Your task to perform on an android device: check android version Image 0: 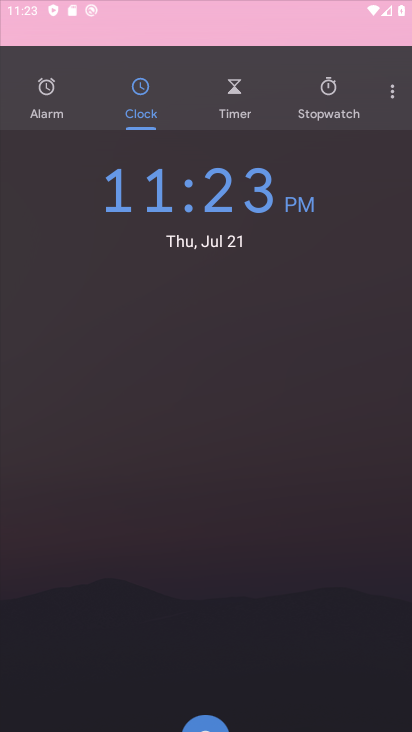
Step 0: press home button
Your task to perform on an android device: check android version Image 1: 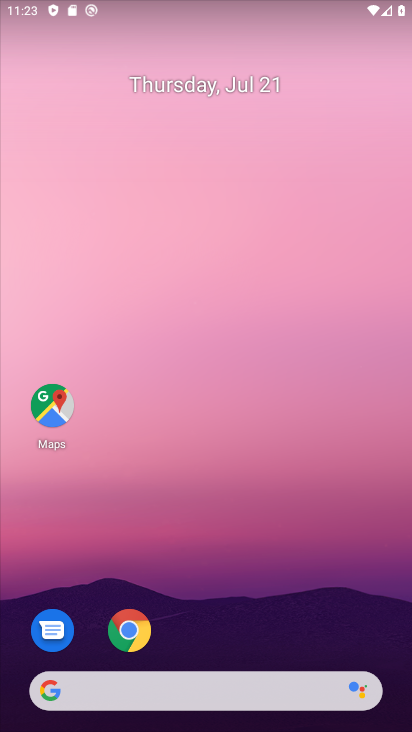
Step 1: drag from (257, 628) to (267, 83)
Your task to perform on an android device: check android version Image 2: 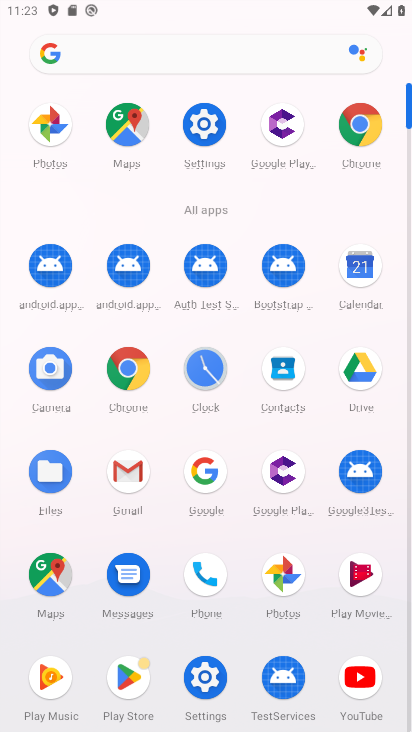
Step 2: click (190, 112)
Your task to perform on an android device: check android version Image 3: 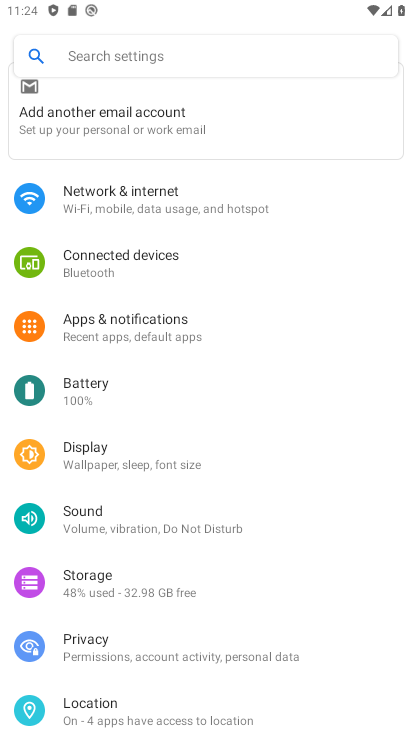
Step 3: drag from (183, 686) to (173, 185)
Your task to perform on an android device: check android version Image 4: 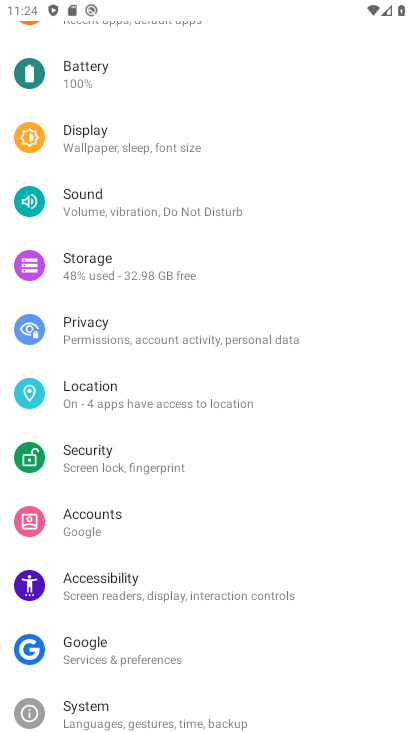
Step 4: drag from (167, 689) to (194, 235)
Your task to perform on an android device: check android version Image 5: 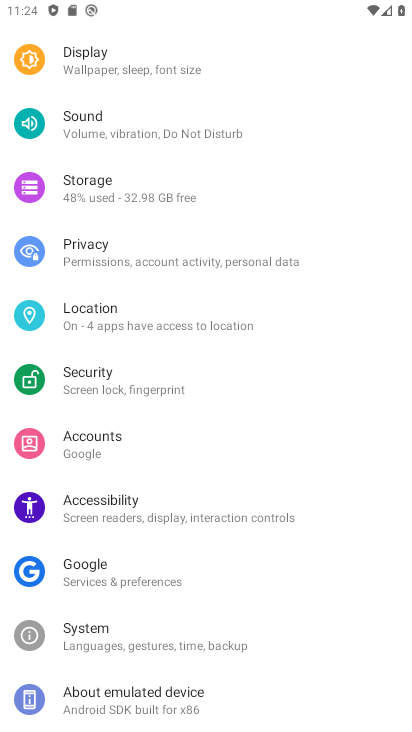
Step 5: click (139, 692)
Your task to perform on an android device: check android version Image 6: 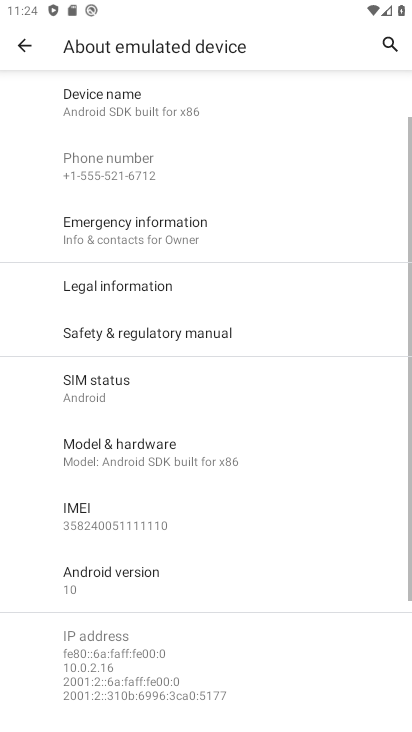
Step 6: click (110, 575)
Your task to perform on an android device: check android version Image 7: 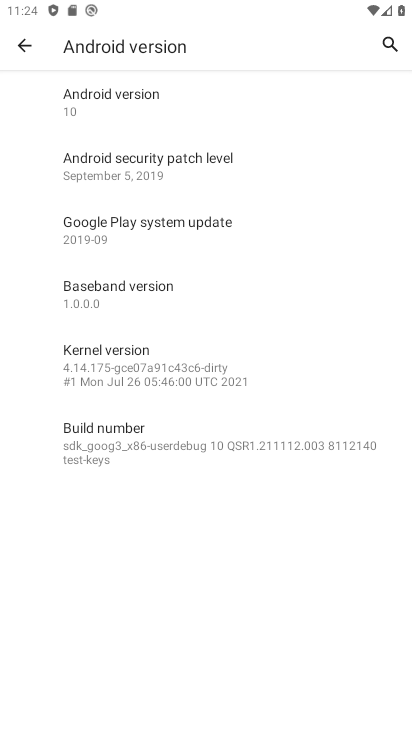
Step 7: task complete